Your task to perform on an android device: Go to Google maps Image 0: 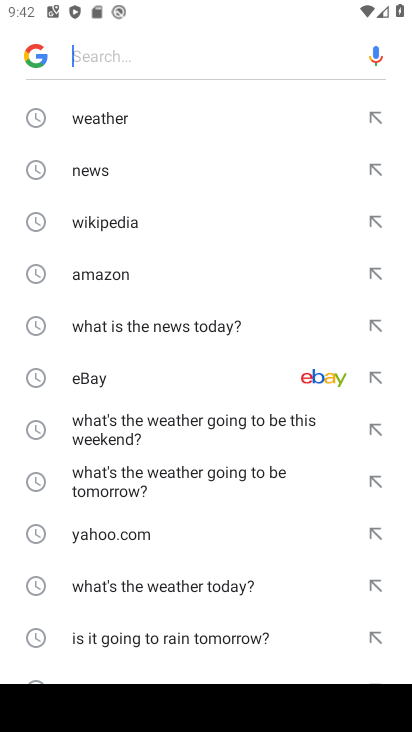
Step 0: press home button
Your task to perform on an android device: Go to Google maps Image 1: 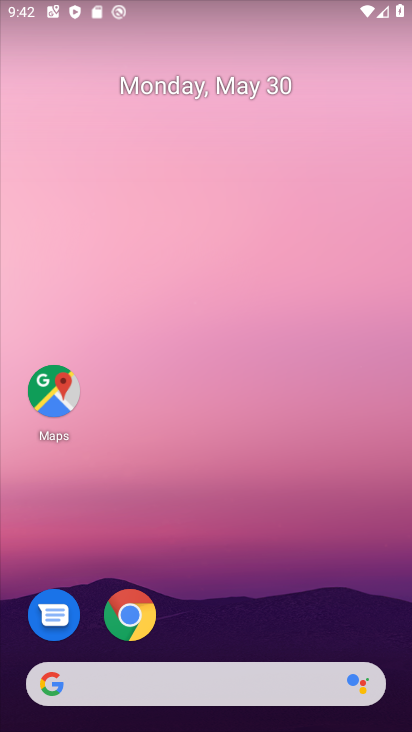
Step 1: click (48, 398)
Your task to perform on an android device: Go to Google maps Image 2: 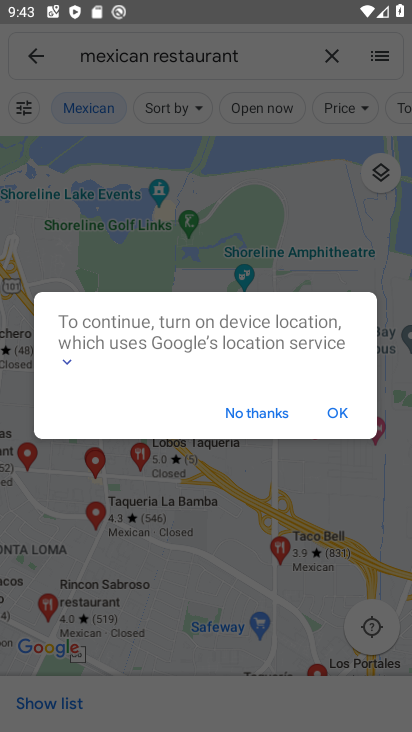
Step 2: click (243, 408)
Your task to perform on an android device: Go to Google maps Image 3: 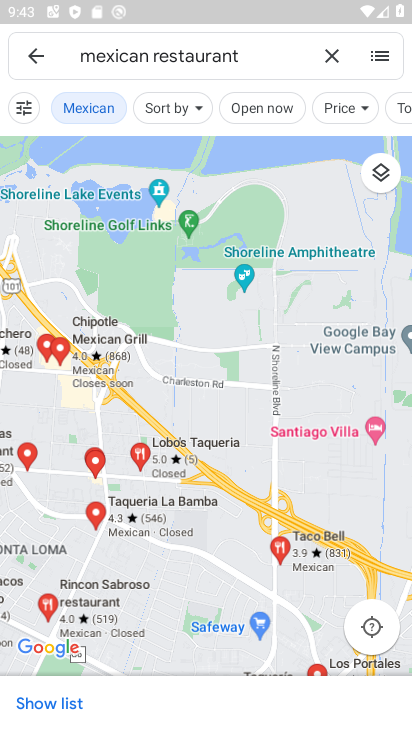
Step 3: task complete